Your task to perform on an android device: delete a single message in the gmail app Image 0: 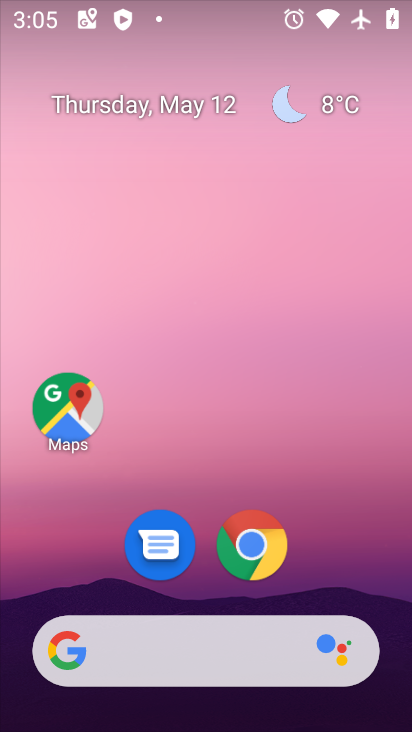
Step 0: drag from (384, 610) to (262, 116)
Your task to perform on an android device: delete a single message in the gmail app Image 1: 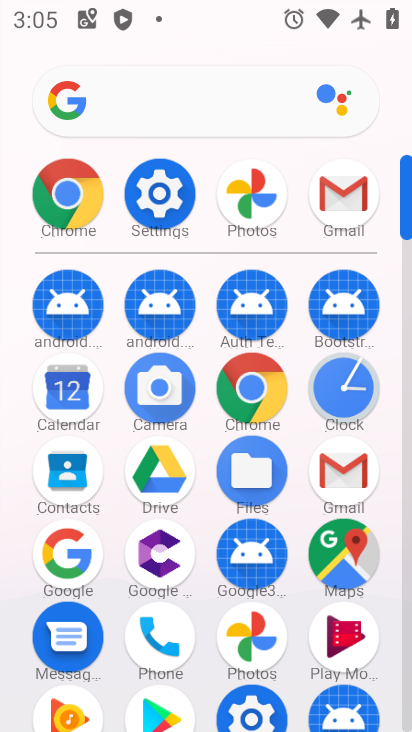
Step 1: click (344, 466)
Your task to perform on an android device: delete a single message in the gmail app Image 2: 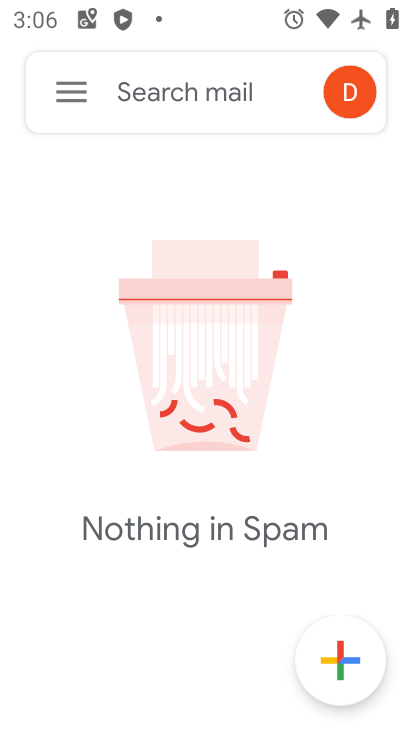
Step 2: click (67, 91)
Your task to perform on an android device: delete a single message in the gmail app Image 3: 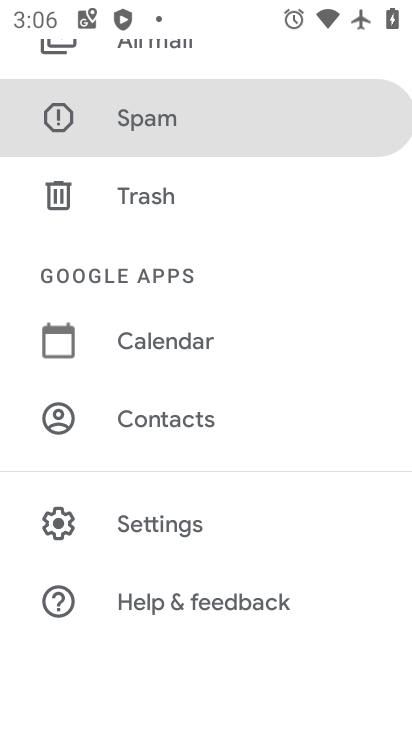
Step 3: drag from (283, 265) to (293, 572)
Your task to perform on an android device: delete a single message in the gmail app Image 4: 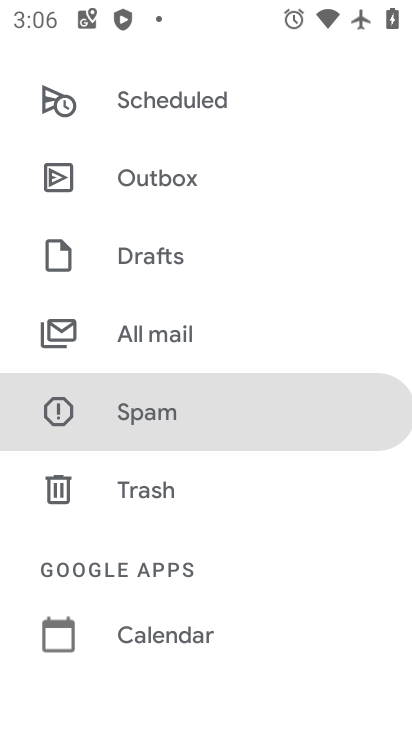
Step 4: drag from (300, 488) to (297, 550)
Your task to perform on an android device: delete a single message in the gmail app Image 5: 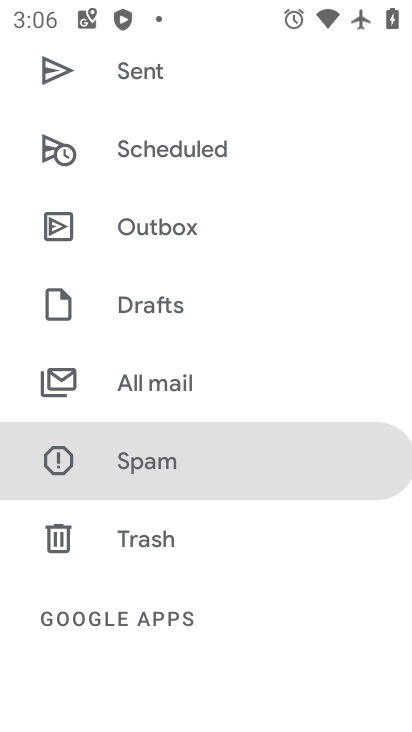
Step 5: click (147, 378)
Your task to perform on an android device: delete a single message in the gmail app Image 6: 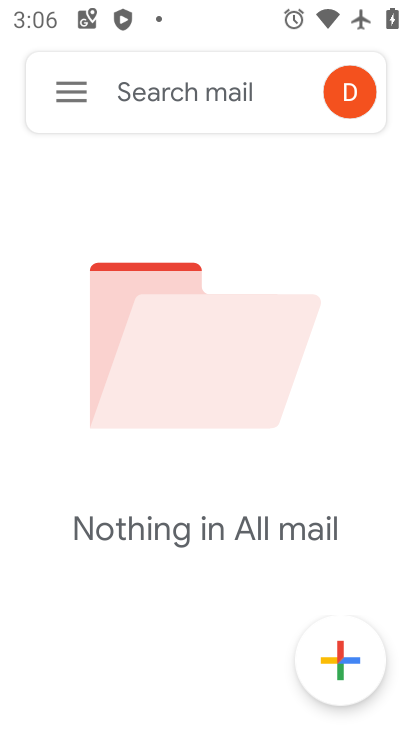
Step 6: task complete